Your task to perform on an android device: turn off airplane mode Image 0: 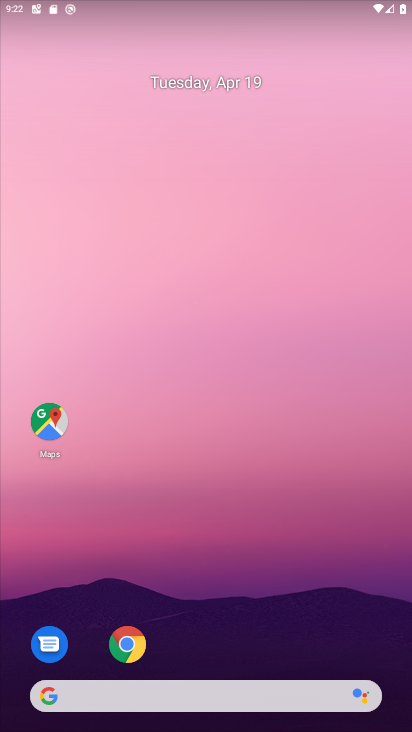
Step 0: drag from (206, 3) to (271, 433)
Your task to perform on an android device: turn off airplane mode Image 1: 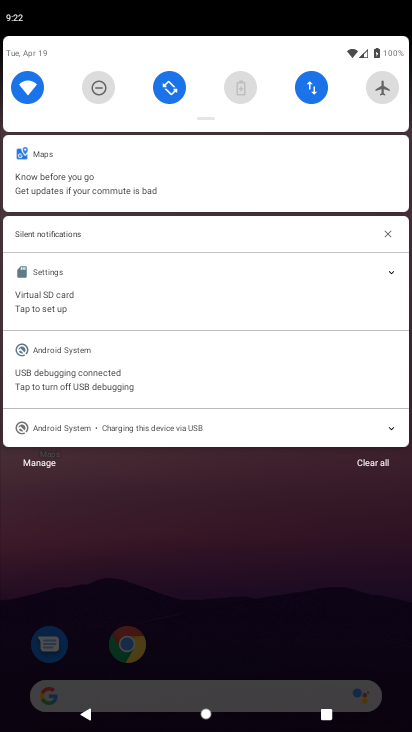
Step 1: task complete